Your task to perform on an android device: Open Wikipedia Image 0: 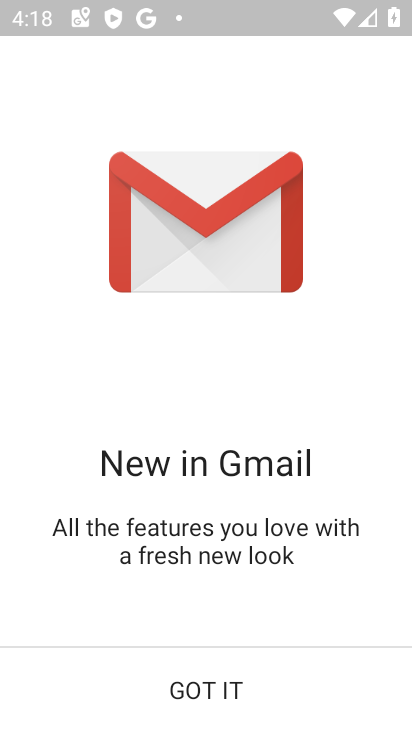
Step 0: press back button
Your task to perform on an android device: Open Wikipedia Image 1: 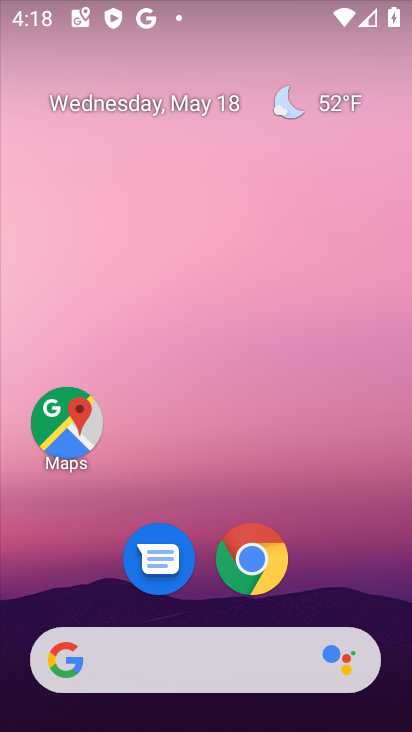
Step 1: click (237, 566)
Your task to perform on an android device: Open Wikipedia Image 2: 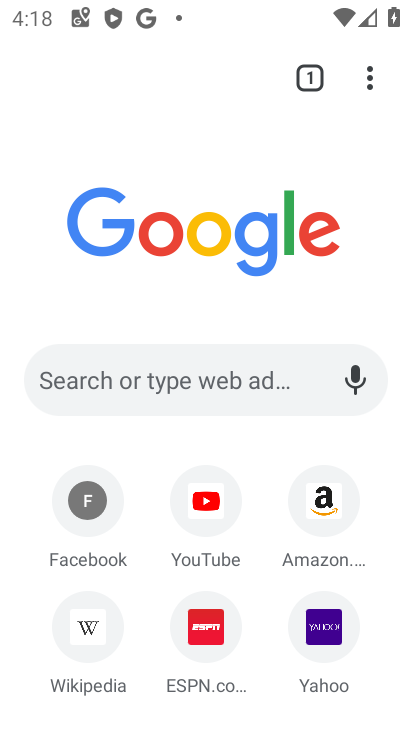
Step 2: click (87, 627)
Your task to perform on an android device: Open Wikipedia Image 3: 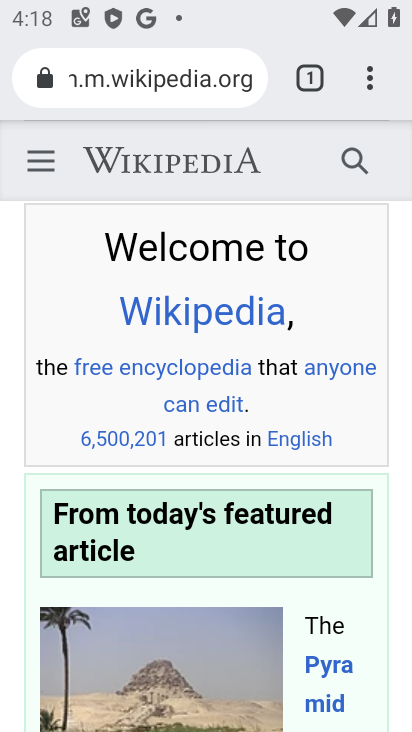
Step 3: task complete